Your task to perform on an android device: open app "PlayWell" Image 0: 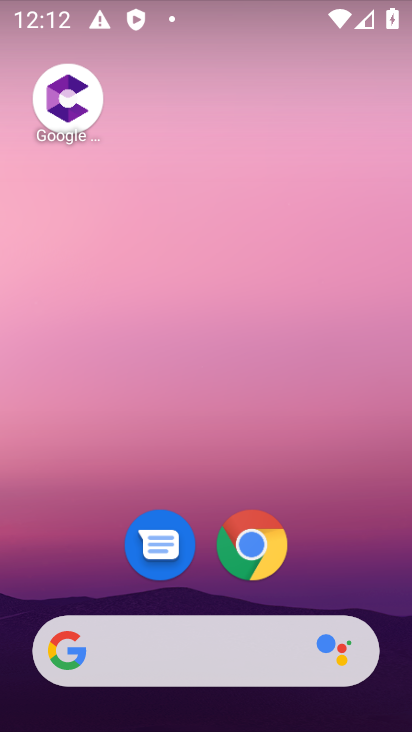
Step 0: drag from (243, 635) to (277, 91)
Your task to perform on an android device: open app "PlayWell" Image 1: 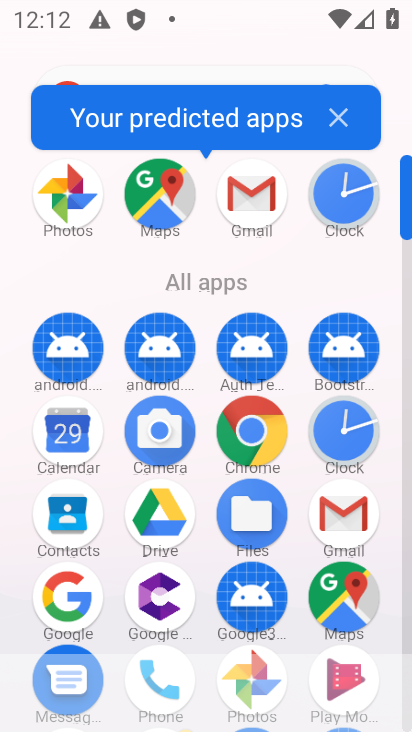
Step 1: drag from (204, 573) to (238, 120)
Your task to perform on an android device: open app "PlayWell" Image 2: 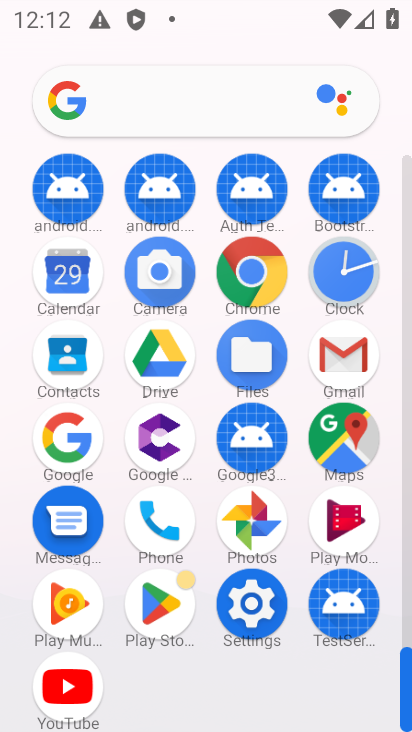
Step 2: click (170, 605)
Your task to perform on an android device: open app "PlayWell" Image 3: 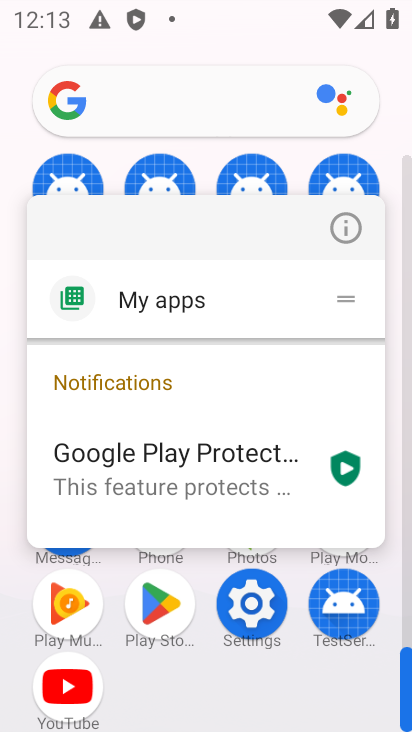
Step 3: click (140, 617)
Your task to perform on an android device: open app "PlayWell" Image 4: 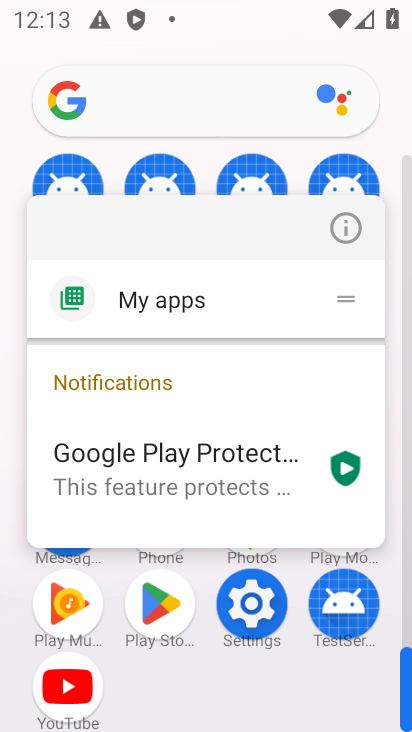
Step 4: click (140, 617)
Your task to perform on an android device: open app "PlayWell" Image 5: 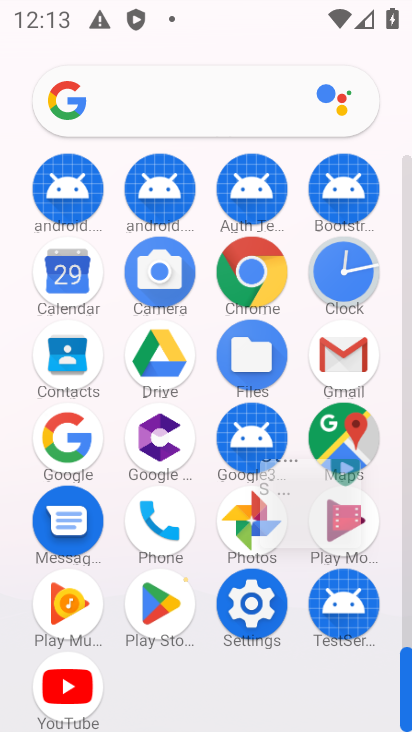
Step 5: click (140, 617)
Your task to perform on an android device: open app "PlayWell" Image 6: 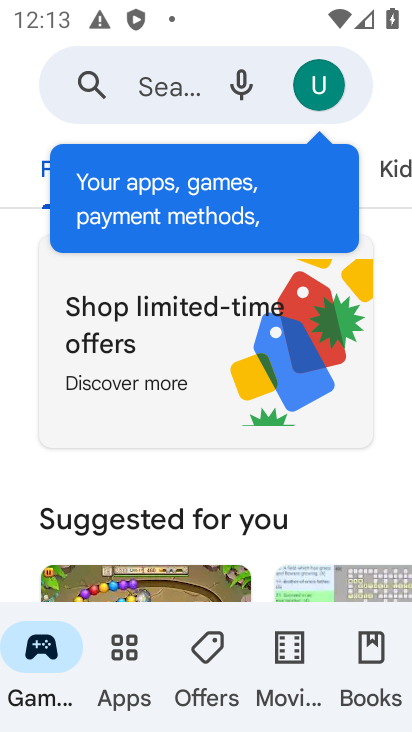
Step 6: click (190, 90)
Your task to perform on an android device: open app "PlayWell" Image 7: 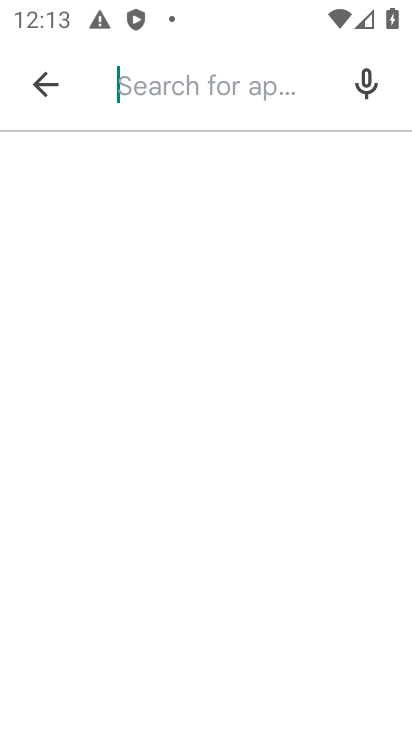
Step 7: click (145, 95)
Your task to perform on an android device: open app "PlayWell" Image 8: 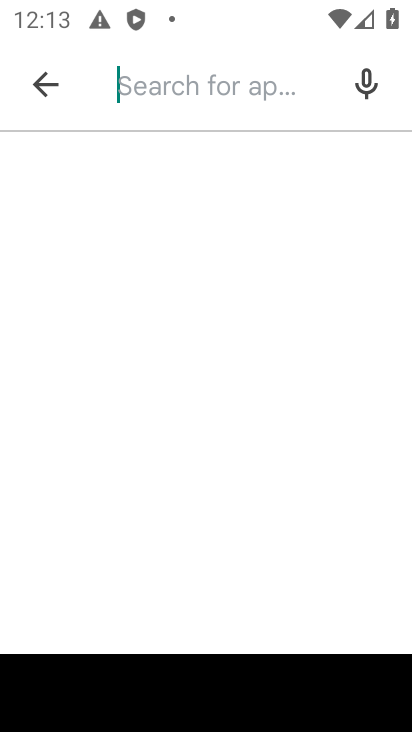
Step 8: type "PlayWell"
Your task to perform on an android device: open app "PlayWell" Image 9: 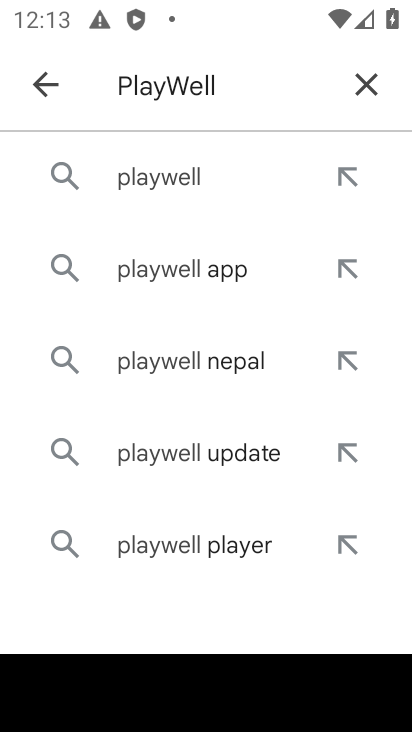
Step 9: click (194, 174)
Your task to perform on an android device: open app "PlayWell" Image 10: 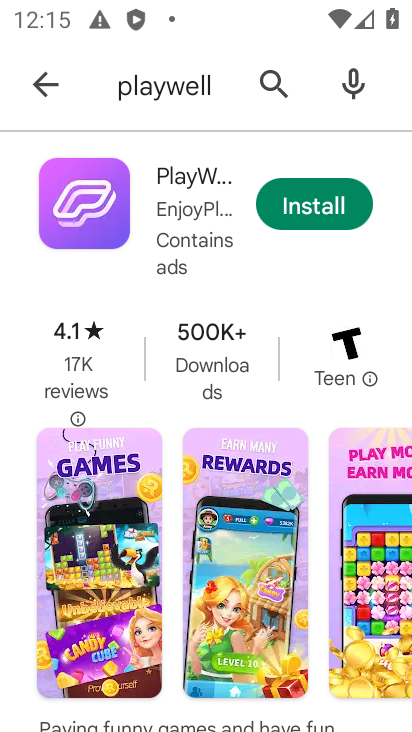
Step 10: task complete